Your task to perform on an android device: What's the weather today? Image 0: 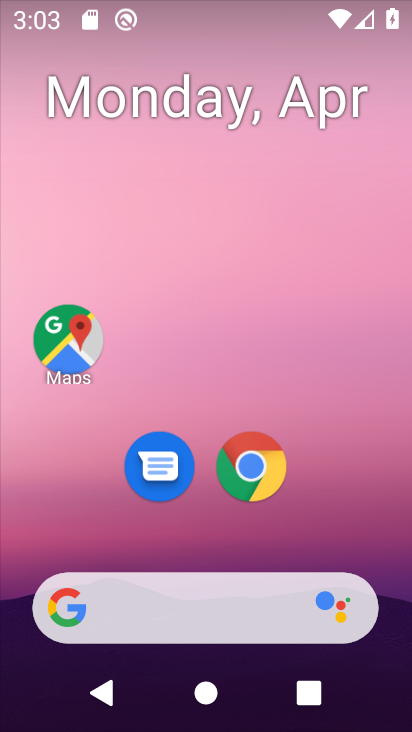
Step 0: drag from (299, 453) to (306, 100)
Your task to perform on an android device: What's the weather today? Image 1: 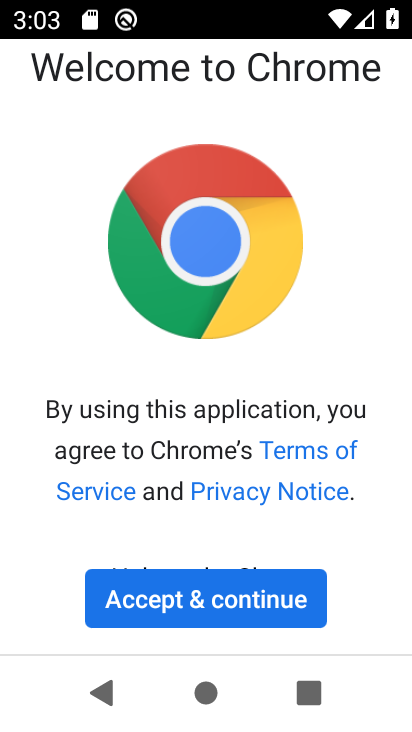
Step 1: click (247, 611)
Your task to perform on an android device: What's the weather today? Image 2: 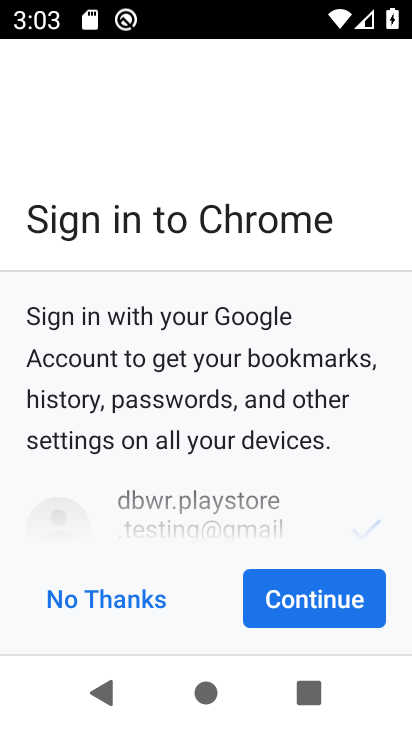
Step 2: click (277, 606)
Your task to perform on an android device: What's the weather today? Image 3: 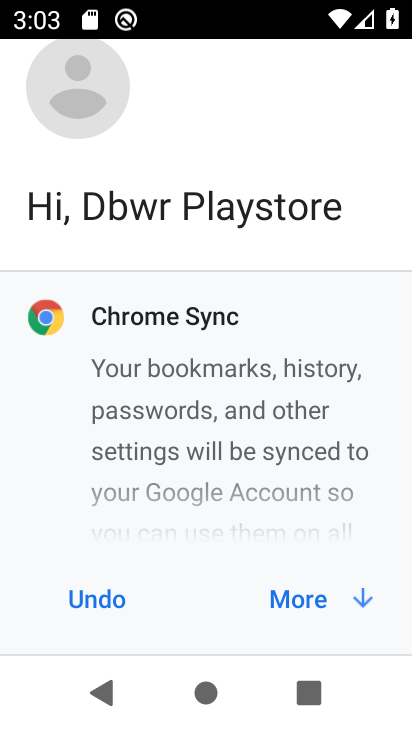
Step 3: click (277, 606)
Your task to perform on an android device: What's the weather today? Image 4: 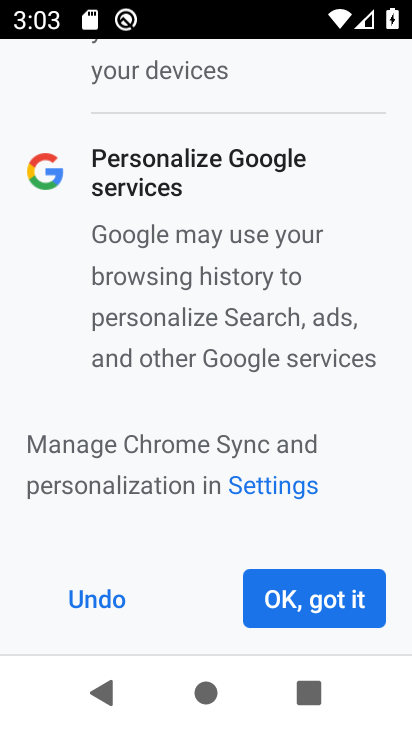
Step 4: click (277, 606)
Your task to perform on an android device: What's the weather today? Image 5: 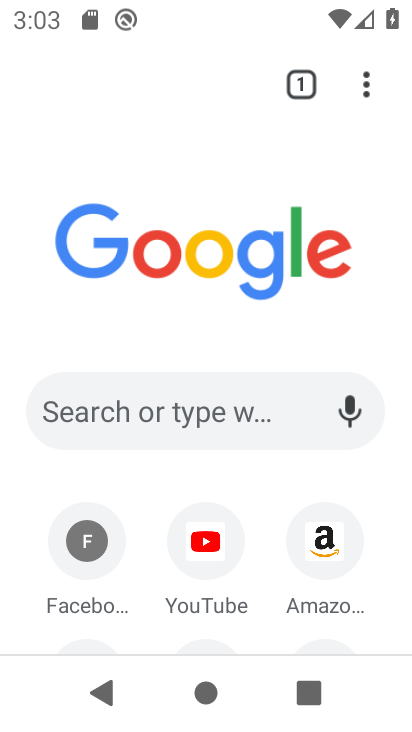
Step 5: click (363, 95)
Your task to perform on an android device: What's the weather today? Image 6: 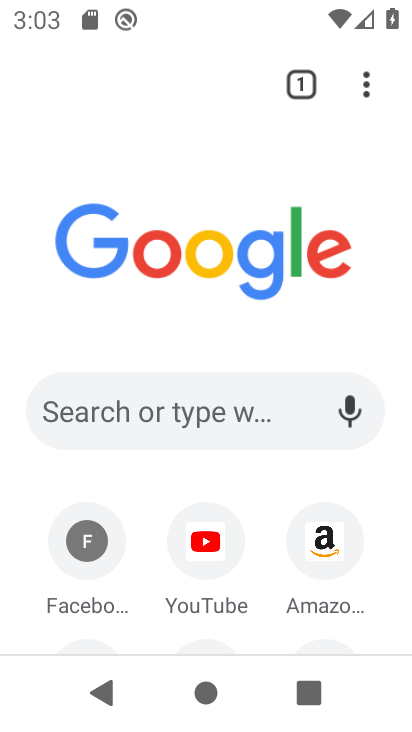
Step 6: click (217, 420)
Your task to perform on an android device: What's the weather today? Image 7: 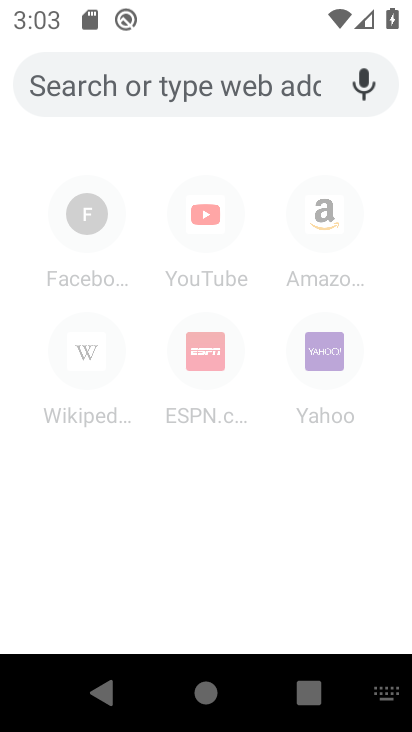
Step 7: type "weather today"
Your task to perform on an android device: What's the weather today? Image 8: 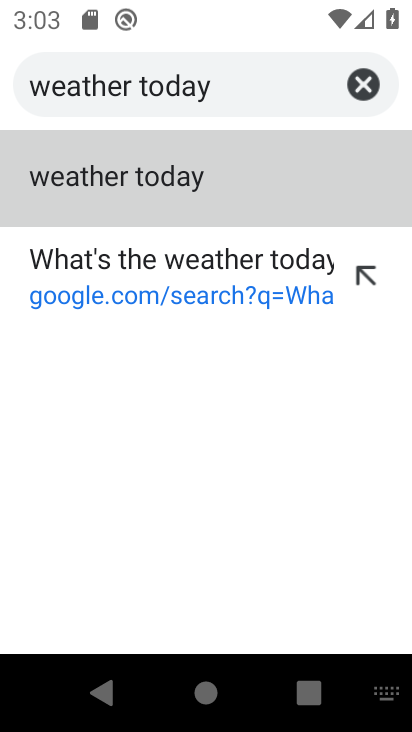
Step 8: click (153, 199)
Your task to perform on an android device: What's the weather today? Image 9: 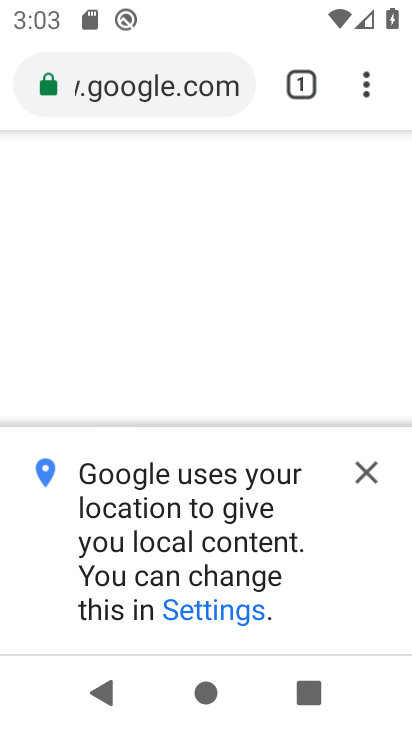
Step 9: click (371, 478)
Your task to perform on an android device: What's the weather today? Image 10: 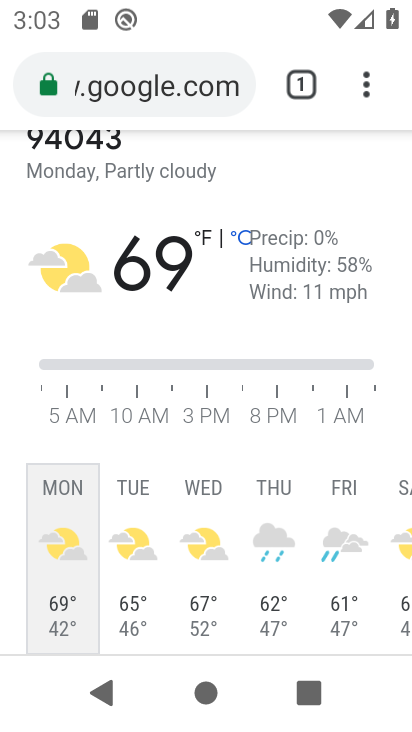
Step 10: task complete